Your task to perform on an android device: Open privacy settings Image 0: 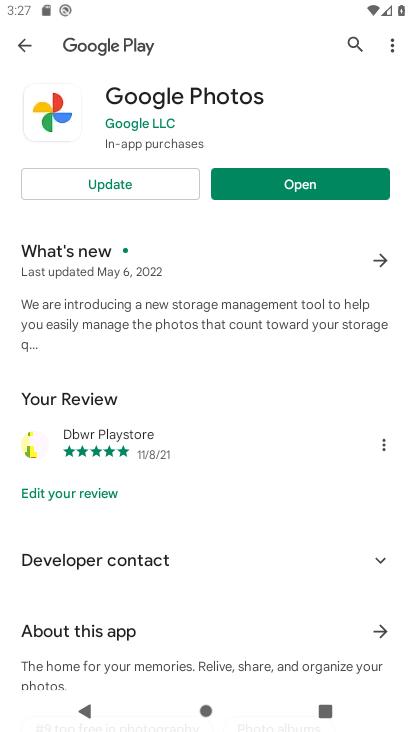
Step 0: press home button
Your task to perform on an android device: Open privacy settings Image 1: 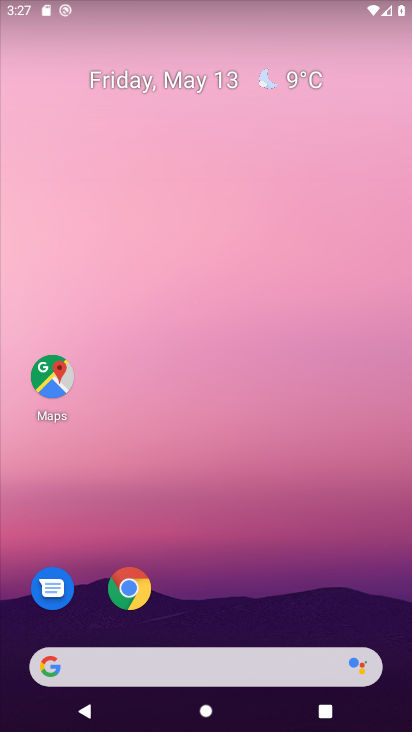
Step 1: drag from (298, 591) to (300, 23)
Your task to perform on an android device: Open privacy settings Image 2: 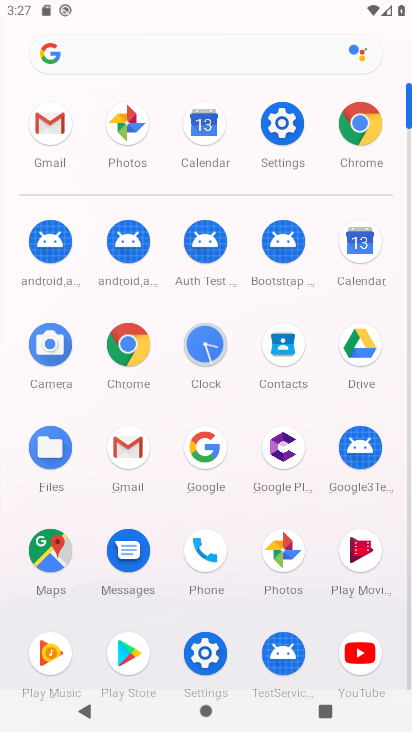
Step 2: click (284, 132)
Your task to perform on an android device: Open privacy settings Image 3: 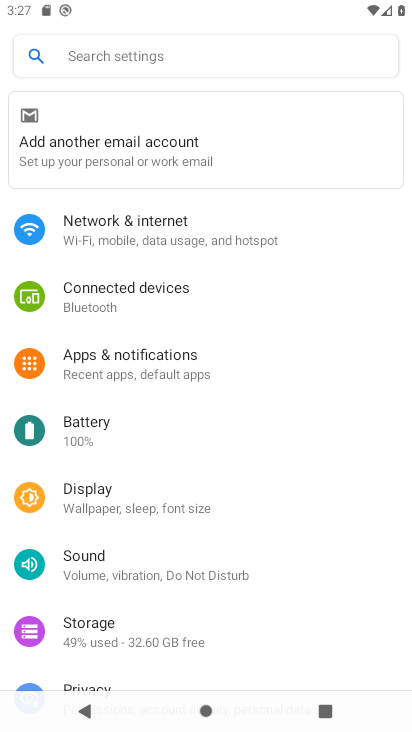
Step 3: drag from (247, 544) to (197, 383)
Your task to perform on an android device: Open privacy settings Image 4: 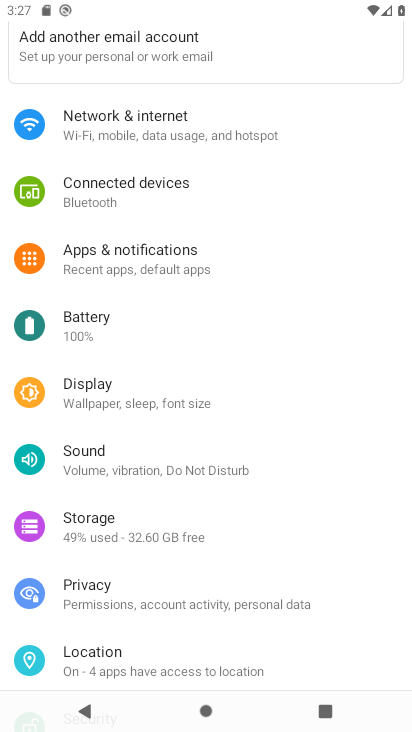
Step 4: click (165, 590)
Your task to perform on an android device: Open privacy settings Image 5: 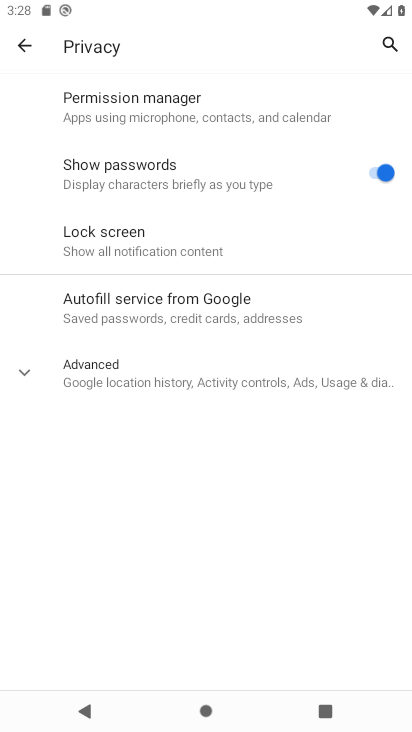
Step 5: task complete